Your task to perform on an android device: Search for seafood restaurants on Google Maps Image 0: 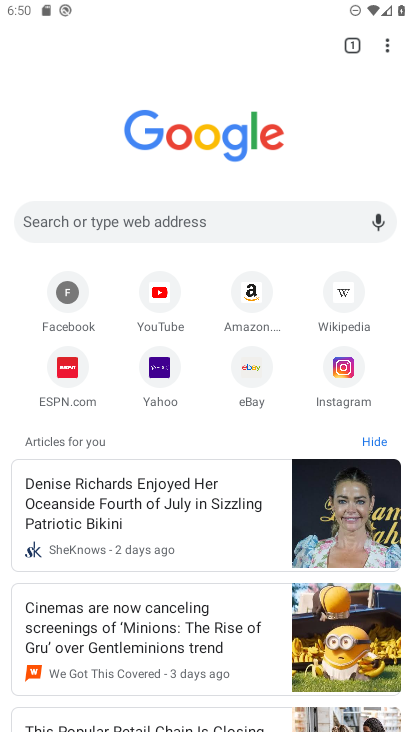
Step 0: press home button
Your task to perform on an android device: Search for seafood restaurants on Google Maps Image 1: 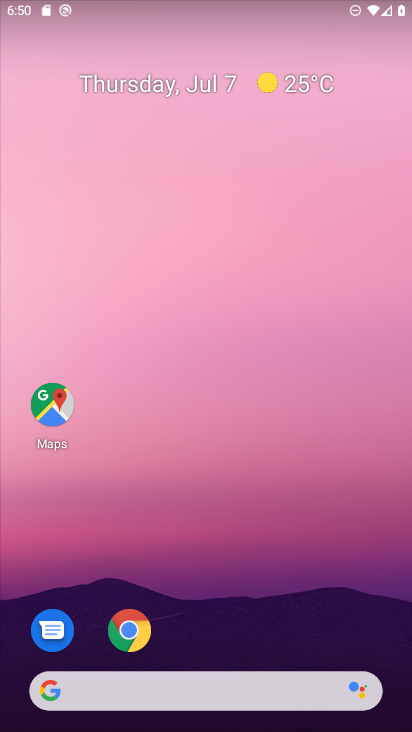
Step 1: click (45, 405)
Your task to perform on an android device: Search for seafood restaurants on Google Maps Image 2: 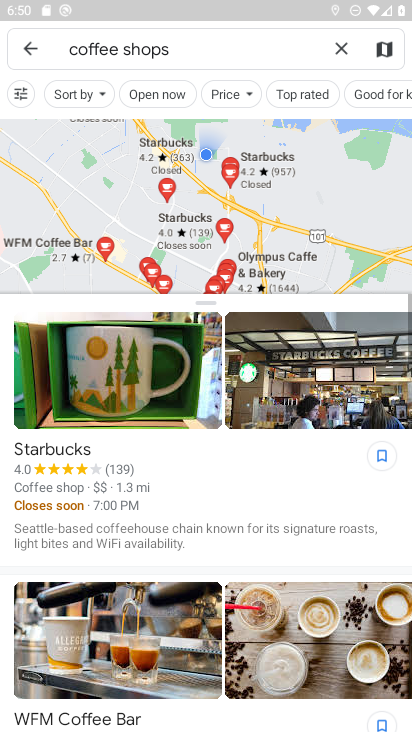
Step 2: click (340, 43)
Your task to perform on an android device: Search for seafood restaurants on Google Maps Image 3: 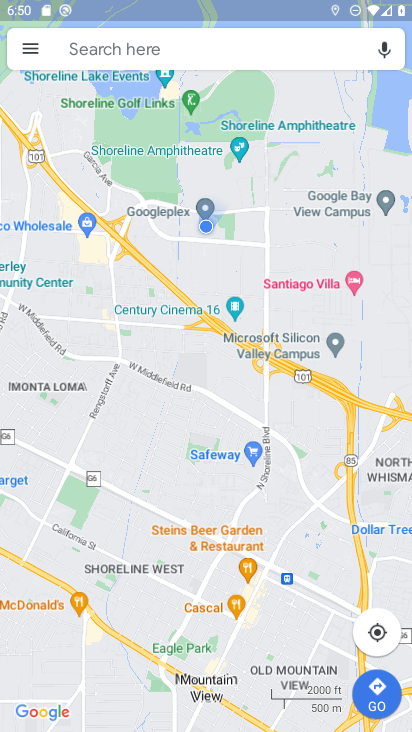
Step 3: click (186, 47)
Your task to perform on an android device: Search for seafood restaurants on Google Maps Image 4: 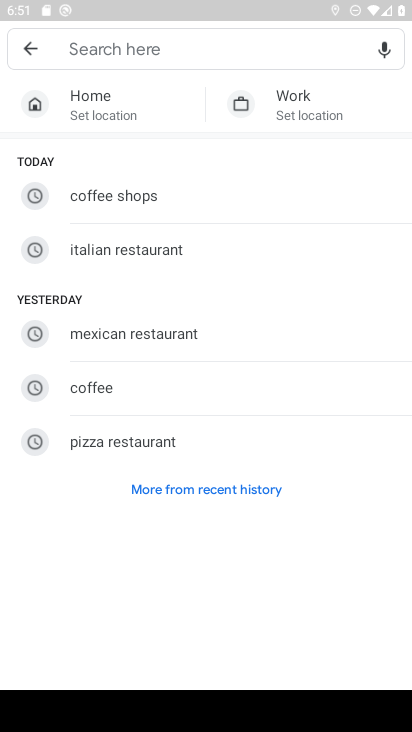
Step 4: type "seafood restaurants"
Your task to perform on an android device: Search for seafood restaurants on Google Maps Image 5: 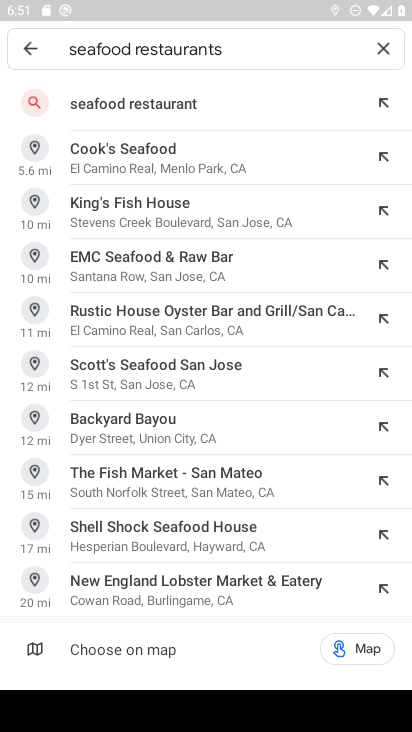
Step 5: click (154, 97)
Your task to perform on an android device: Search for seafood restaurants on Google Maps Image 6: 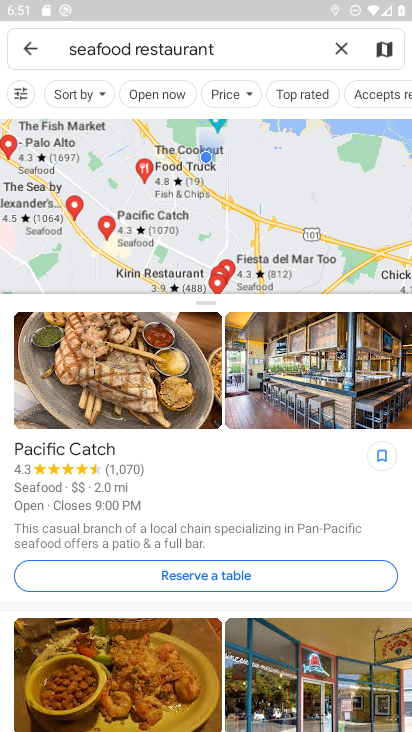
Step 6: task complete